Your task to perform on an android device: Go to Maps Image 0: 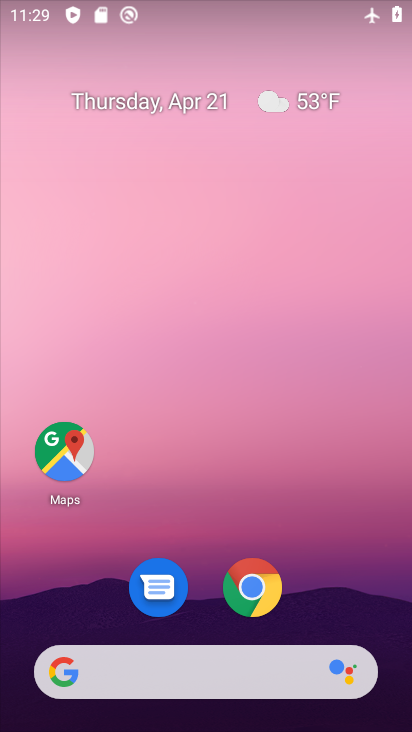
Step 0: click (69, 453)
Your task to perform on an android device: Go to Maps Image 1: 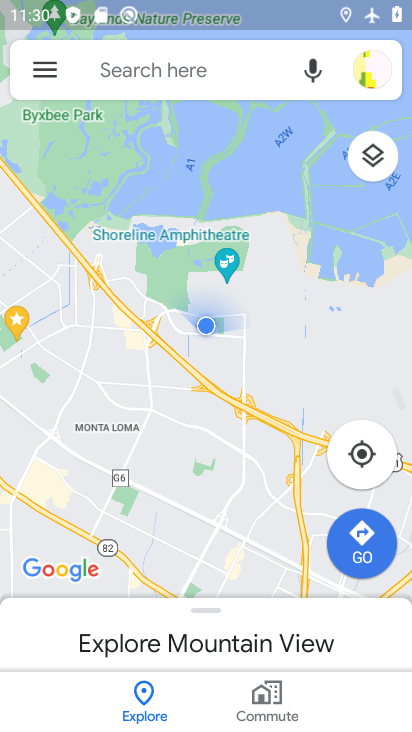
Step 1: task complete